Your task to perform on an android device: set default search engine in the chrome app Image 0: 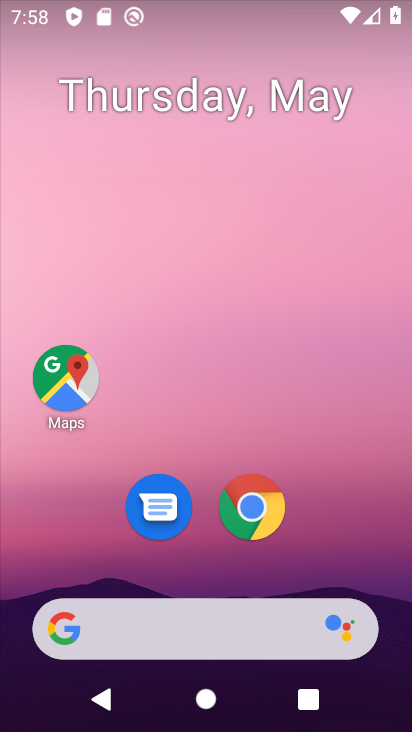
Step 0: drag from (360, 570) to (376, 179)
Your task to perform on an android device: set default search engine in the chrome app Image 1: 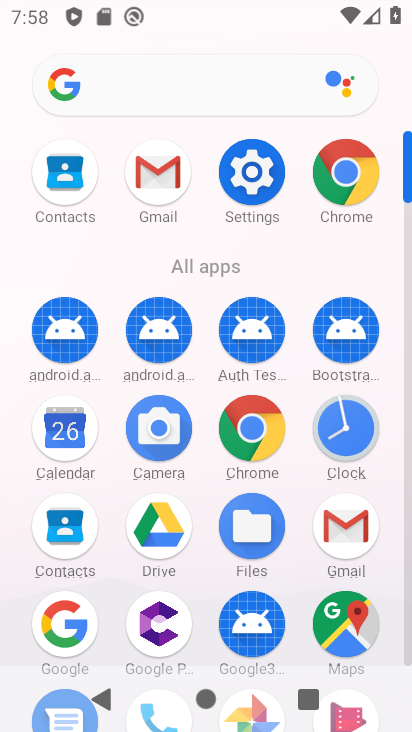
Step 1: click (362, 168)
Your task to perform on an android device: set default search engine in the chrome app Image 2: 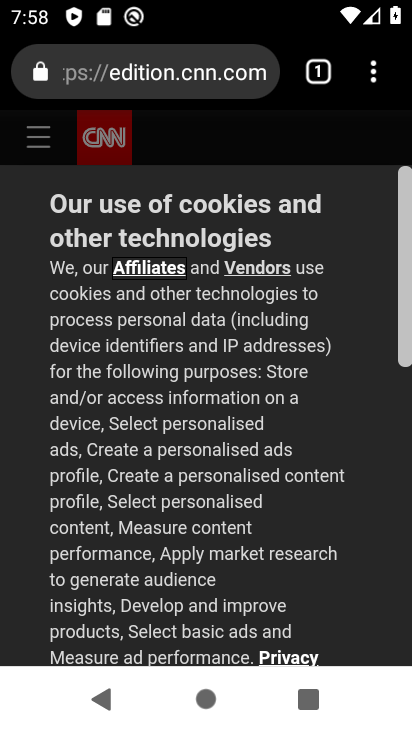
Step 2: click (380, 89)
Your task to perform on an android device: set default search engine in the chrome app Image 3: 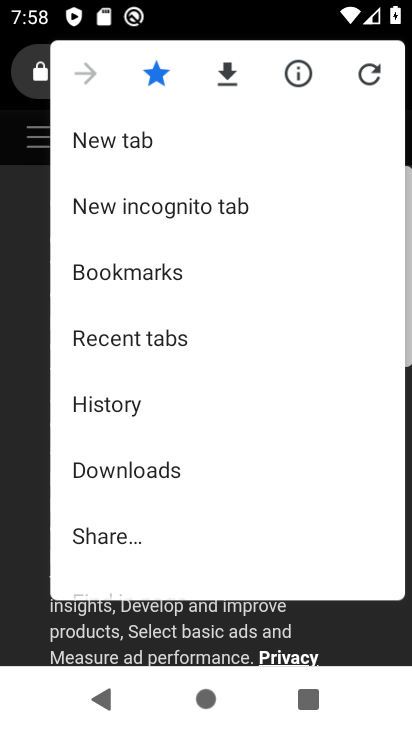
Step 3: drag from (176, 531) to (192, 284)
Your task to perform on an android device: set default search engine in the chrome app Image 4: 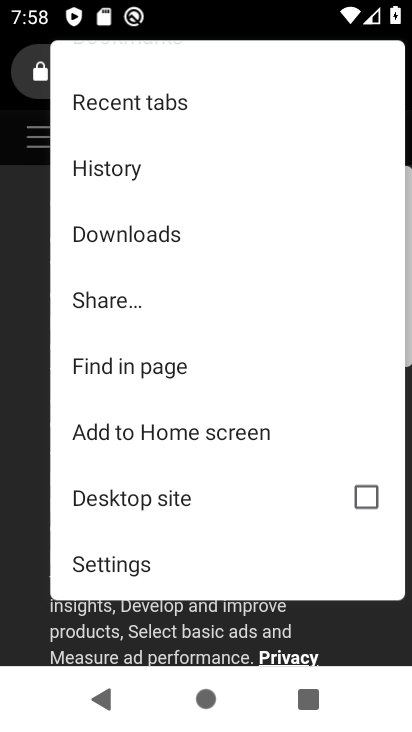
Step 4: click (159, 564)
Your task to perform on an android device: set default search engine in the chrome app Image 5: 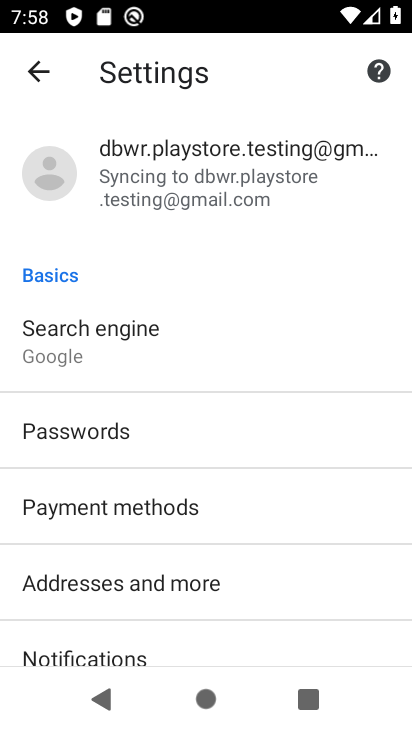
Step 5: click (152, 365)
Your task to perform on an android device: set default search engine in the chrome app Image 6: 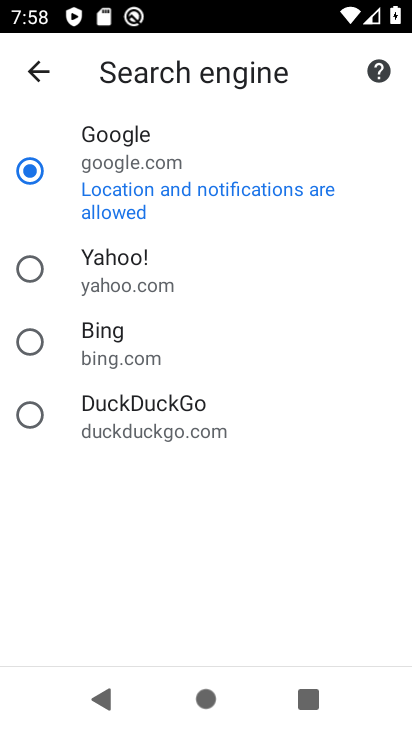
Step 6: click (137, 278)
Your task to perform on an android device: set default search engine in the chrome app Image 7: 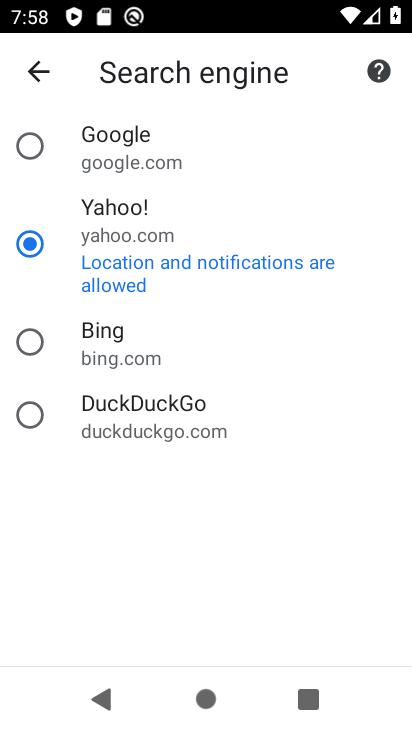
Step 7: task complete